Your task to perform on an android device: Go to settings Image 0: 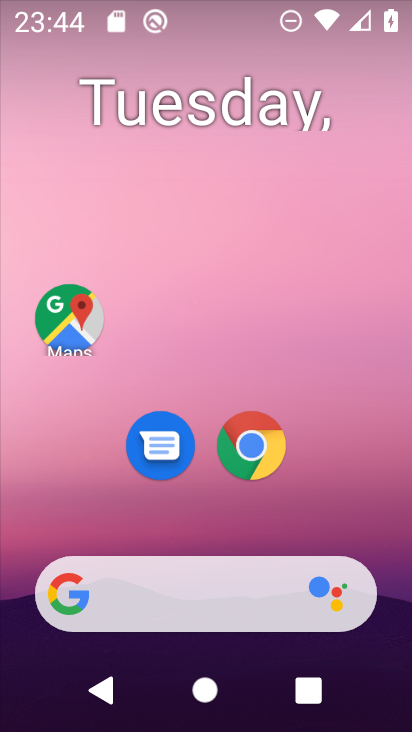
Step 0: drag from (208, 496) to (212, 135)
Your task to perform on an android device: Go to settings Image 1: 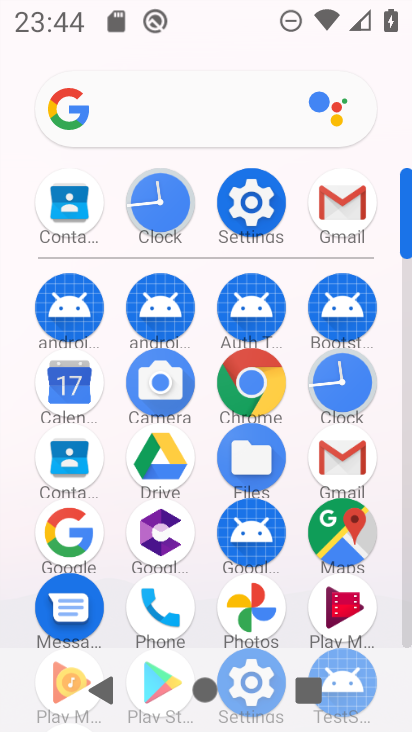
Step 1: click (259, 194)
Your task to perform on an android device: Go to settings Image 2: 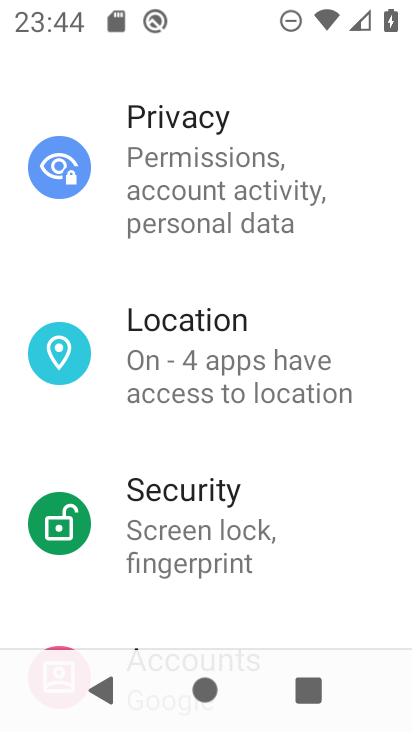
Step 2: task complete